Your task to perform on an android device: Search for Mexican restaurants on Maps Image 0: 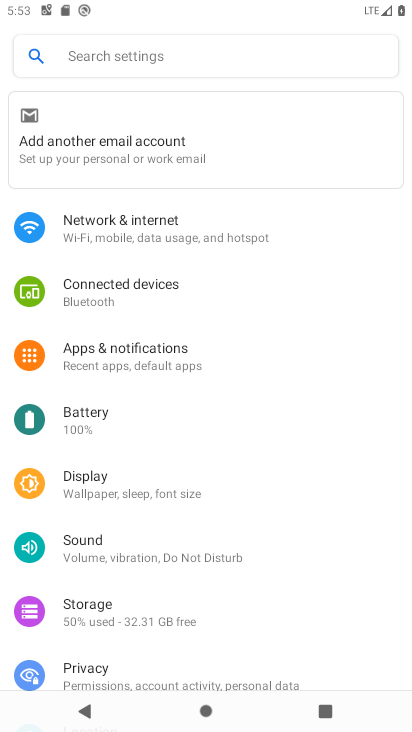
Step 0: press home button
Your task to perform on an android device: Search for Mexican restaurants on Maps Image 1: 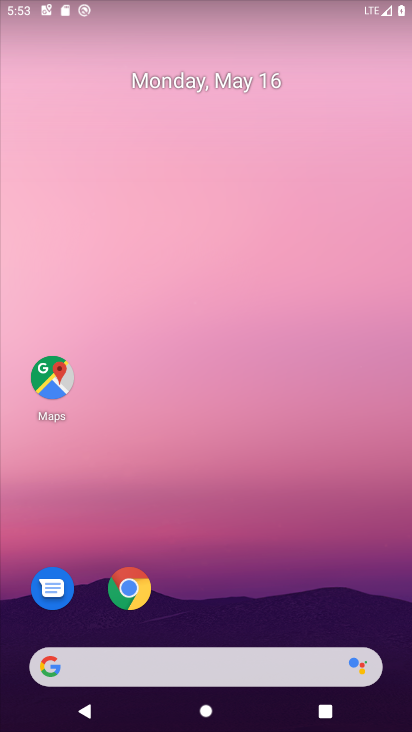
Step 1: click (52, 384)
Your task to perform on an android device: Search for Mexican restaurants on Maps Image 2: 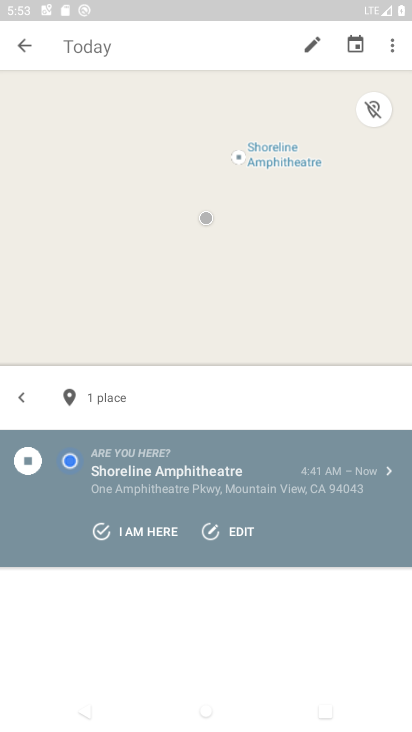
Step 2: click (21, 42)
Your task to perform on an android device: Search for Mexican restaurants on Maps Image 3: 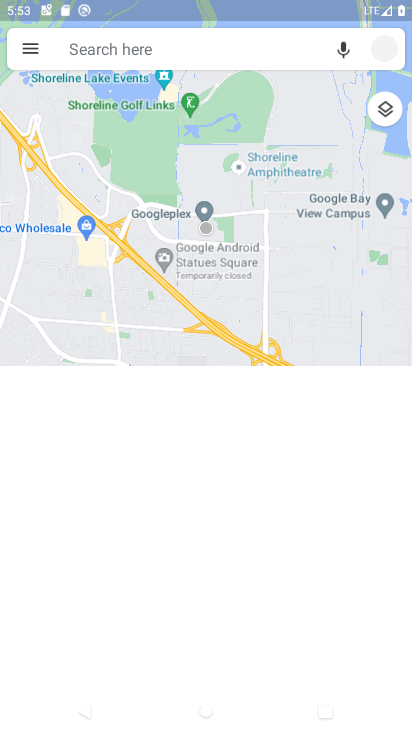
Step 3: click (186, 44)
Your task to perform on an android device: Search for Mexican restaurants on Maps Image 4: 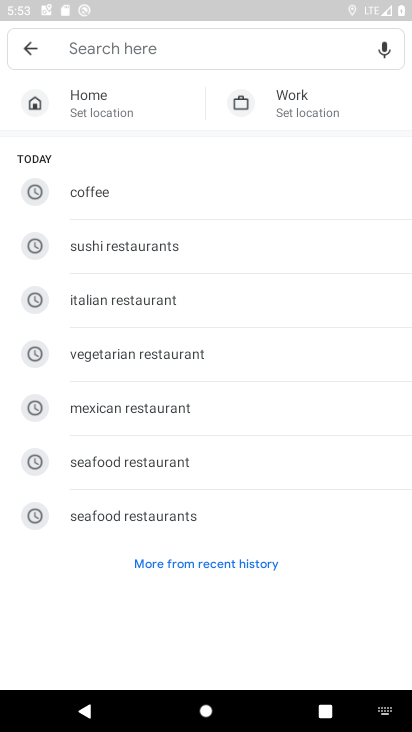
Step 4: click (108, 408)
Your task to perform on an android device: Search for Mexican restaurants on Maps Image 5: 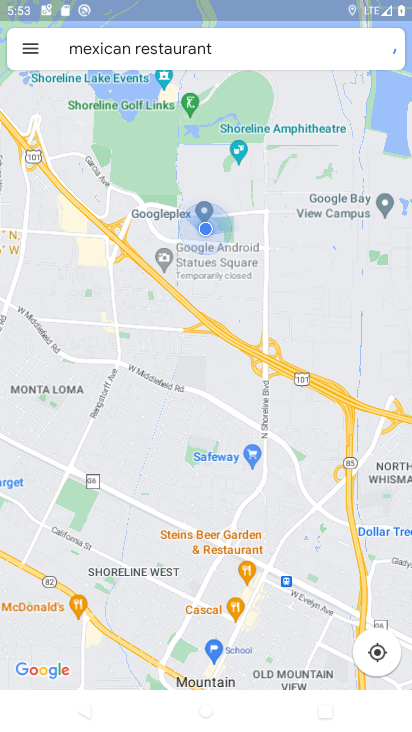
Step 5: task complete